Your task to perform on an android device: When is my next meeting? Image 0: 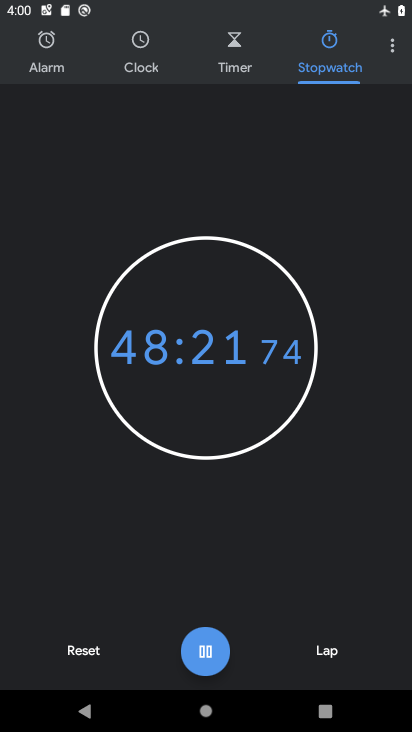
Step 0: press home button
Your task to perform on an android device: When is my next meeting? Image 1: 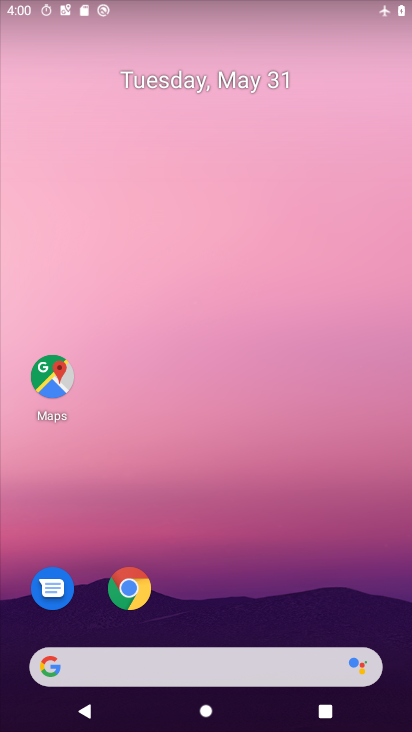
Step 1: drag from (306, 622) to (314, 87)
Your task to perform on an android device: When is my next meeting? Image 2: 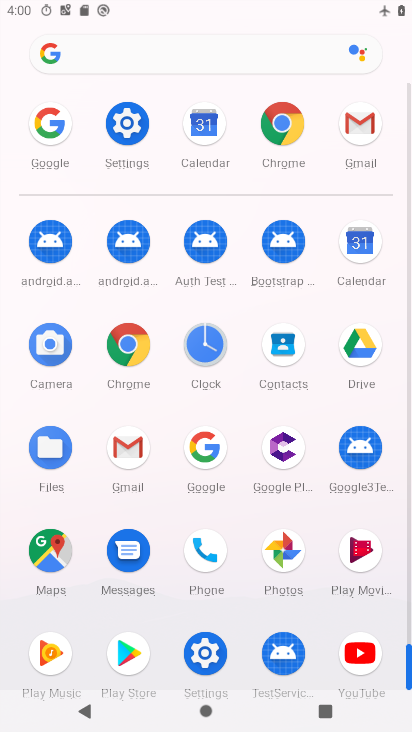
Step 2: click (371, 247)
Your task to perform on an android device: When is my next meeting? Image 3: 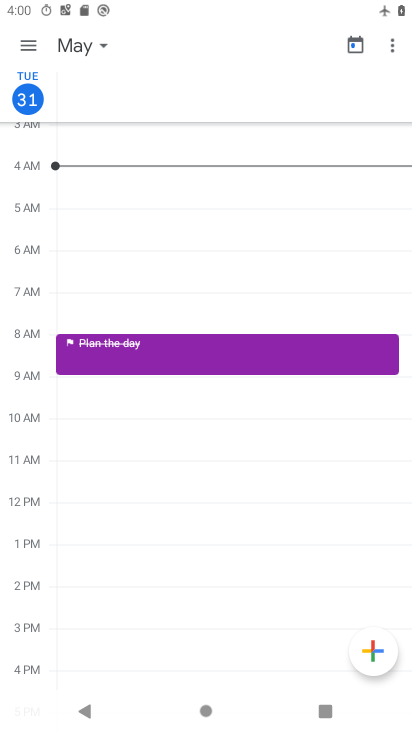
Step 3: click (27, 52)
Your task to perform on an android device: When is my next meeting? Image 4: 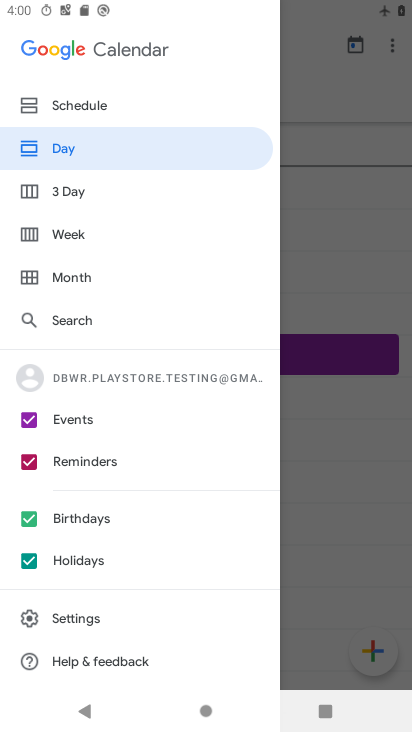
Step 4: click (109, 100)
Your task to perform on an android device: When is my next meeting? Image 5: 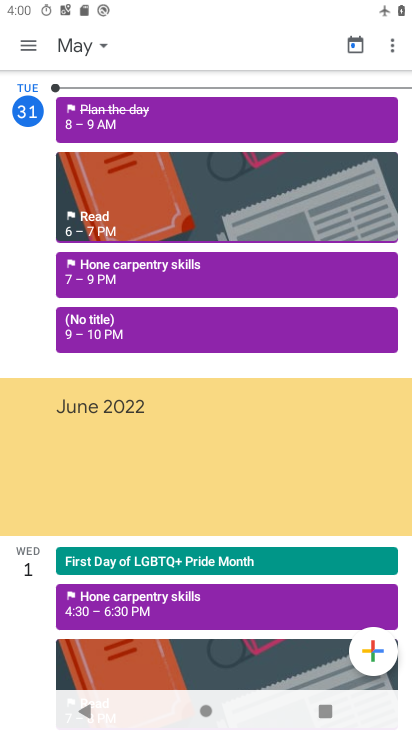
Step 5: click (32, 51)
Your task to perform on an android device: When is my next meeting? Image 6: 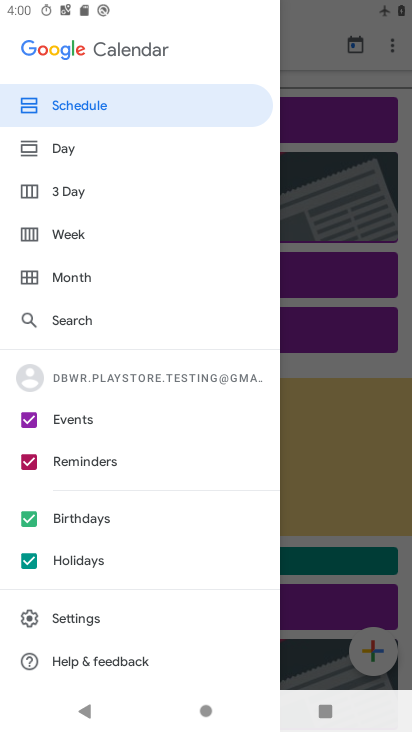
Step 6: click (96, 556)
Your task to perform on an android device: When is my next meeting? Image 7: 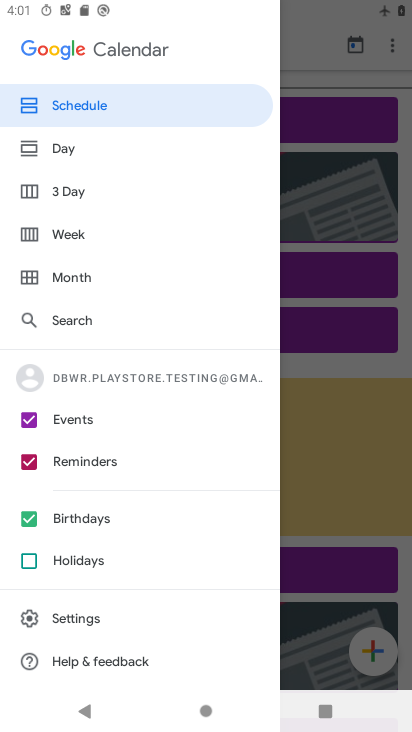
Step 7: click (95, 515)
Your task to perform on an android device: When is my next meeting? Image 8: 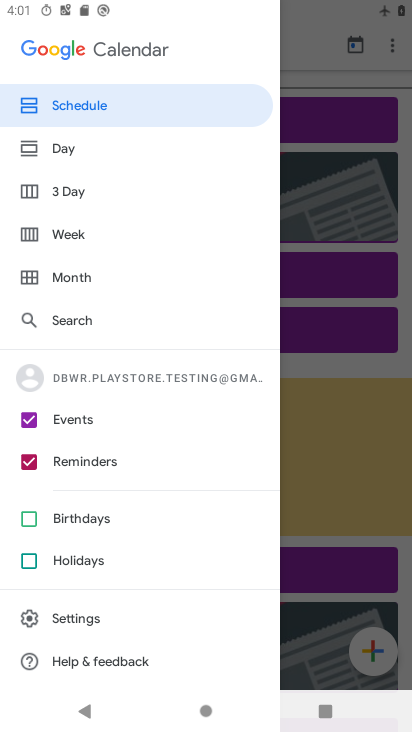
Step 8: task complete